Your task to perform on an android device: Go to Android settings Image 0: 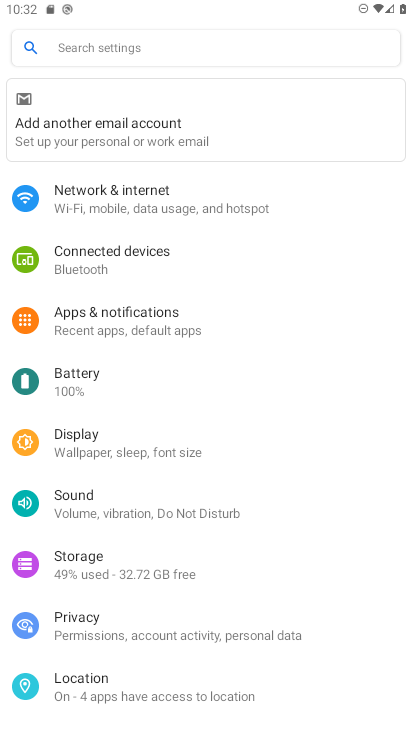
Step 0: press home button
Your task to perform on an android device: Go to Android settings Image 1: 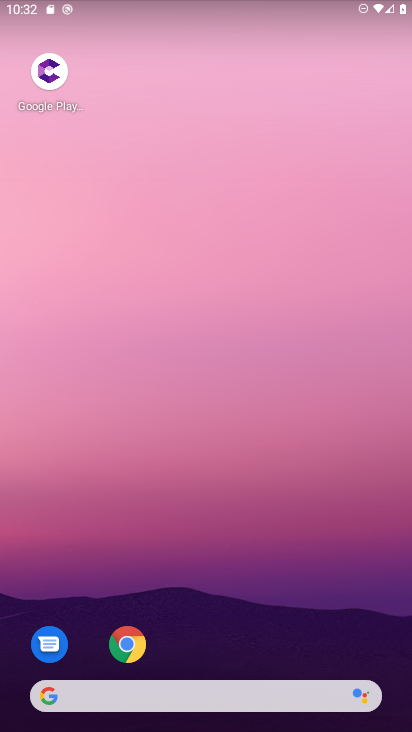
Step 1: drag from (225, 638) to (264, 4)
Your task to perform on an android device: Go to Android settings Image 2: 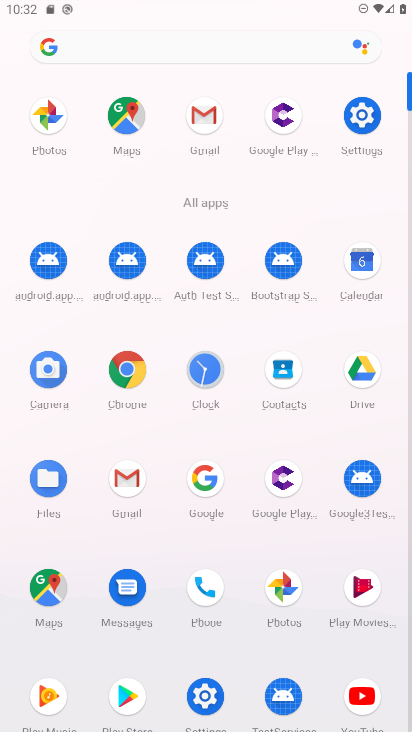
Step 2: click (360, 115)
Your task to perform on an android device: Go to Android settings Image 3: 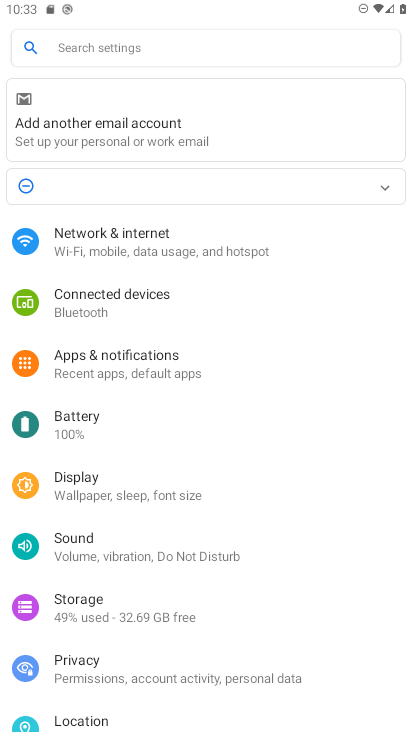
Step 3: task complete